Your task to perform on an android device: Is it going to rain today? Image 0: 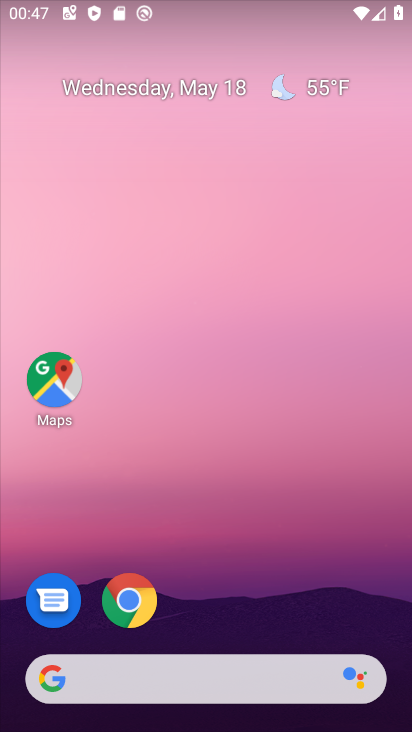
Step 0: click (311, 81)
Your task to perform on an android device: Is it going to rain today? Image 1: 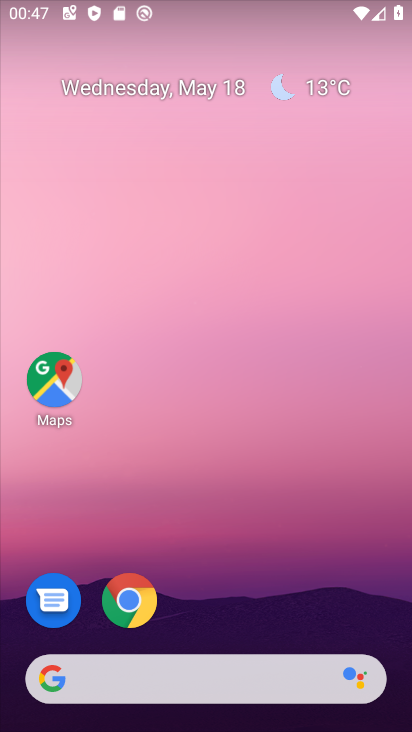
Step 1: drag from (12, 277) to (365, 233)
Your task to perform on an android device: Is it going to rain today? Image 2: 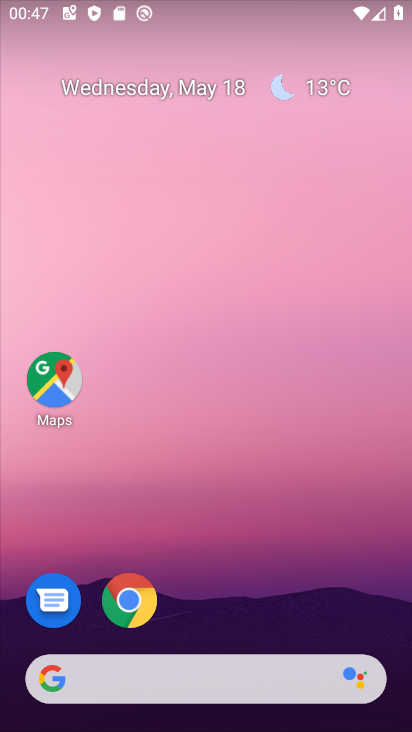
Step 2: drag from (18, 280) to (368, 254)
Your task to perform on an android device: Is it going to rain today? Image 3: 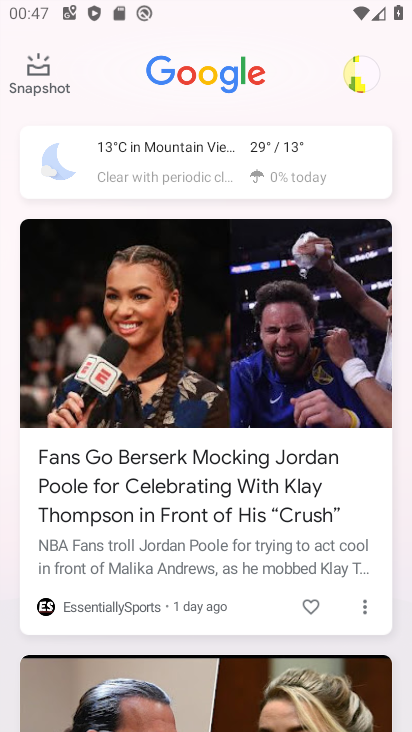
Step 3: click (160, 162)
Your task to perform on an android device: Is it going to rain today? Image 4: 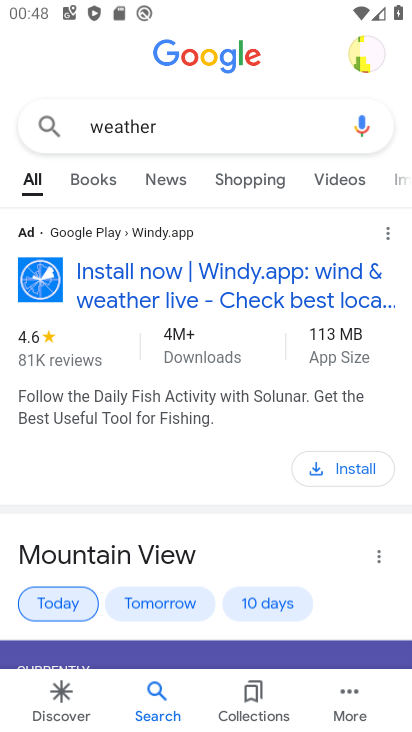
Step 4: task complete